Your task to perform on an android device: check the backup settings in the google photos Image 0: 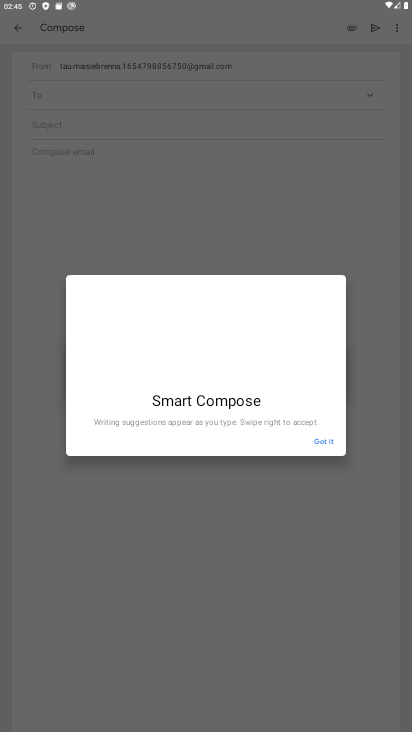
Step 0: press home button
Your task to perform on an android device: check the backup settings in the google photos Image 1: 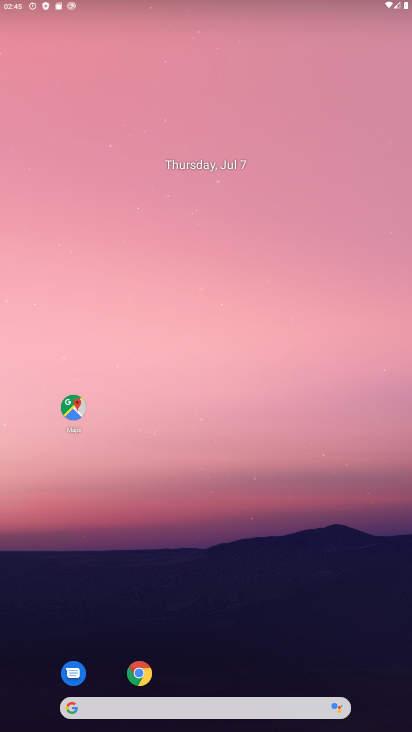
Step 1: drag from (214, 630) to (214, 165)
Your task to perform on an android device: check the backup settings in the google photos Image 2: 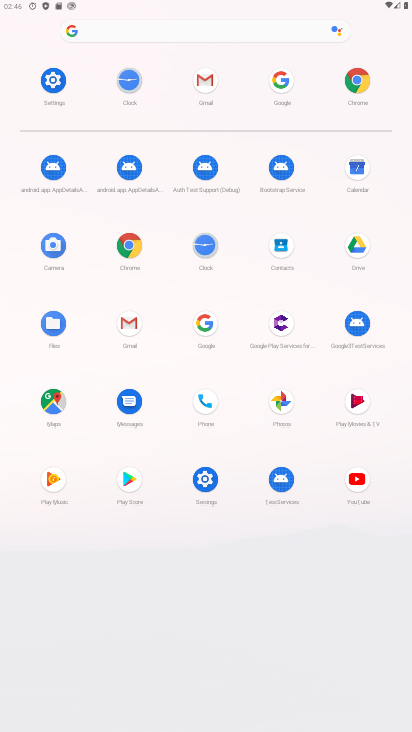
Step 2: click (282, 394)
Your task to perform on an android device: check the backup settings in the google photos Image 3: 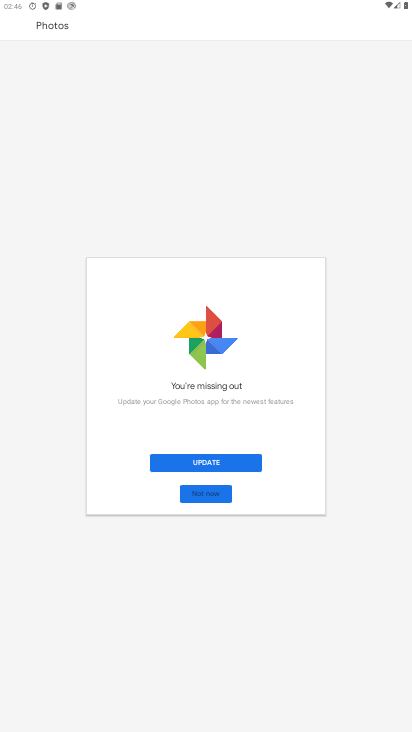
Step 3: click (223, 492)
Your task to perform on an android device: check the backup settings in the google photos Image 4: 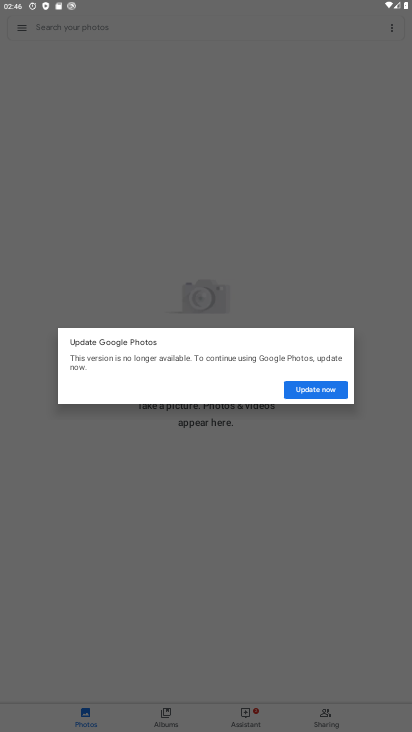
Step 4: click (305, 386)
Your task to perform on an android device: check the backup settings in the google photos Image 5: 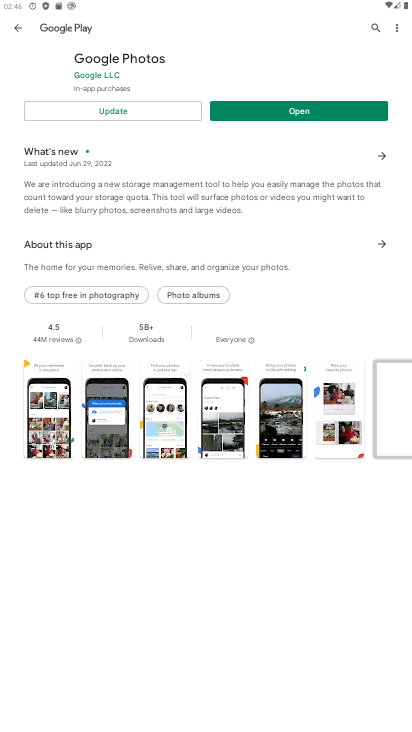
Step 5: click (295, 116)
Your task to perform on an android device: check the backup settings in the google photos Image 6: 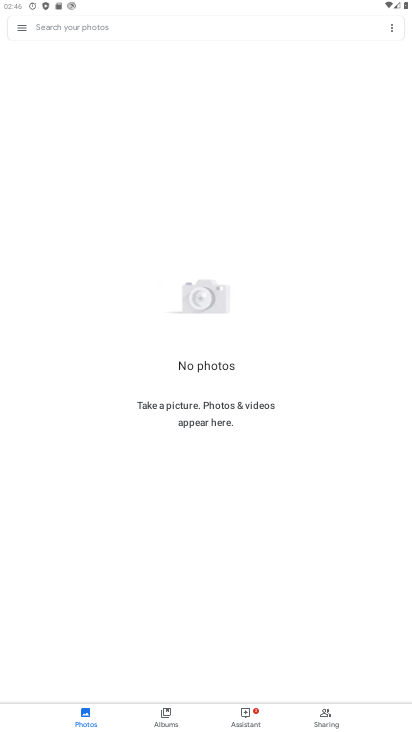
Step 6: click (20, 23)
Your task to perform on an android device: check the backup settings in the google photos Image 7: 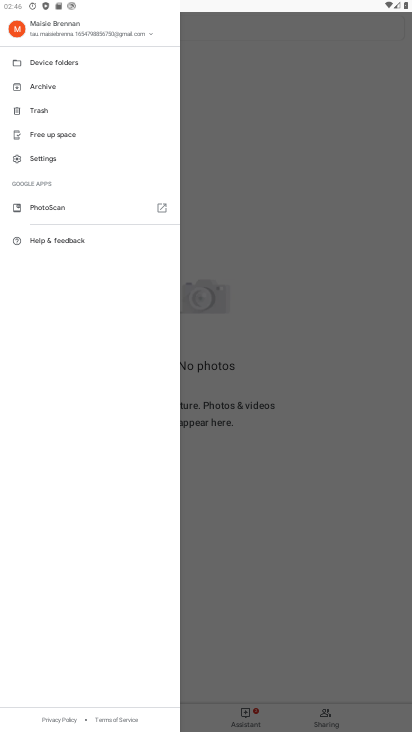
Step 7: click (79, 30)
Your task to perform on an android device: check the backup settings in the google photos Image 8: 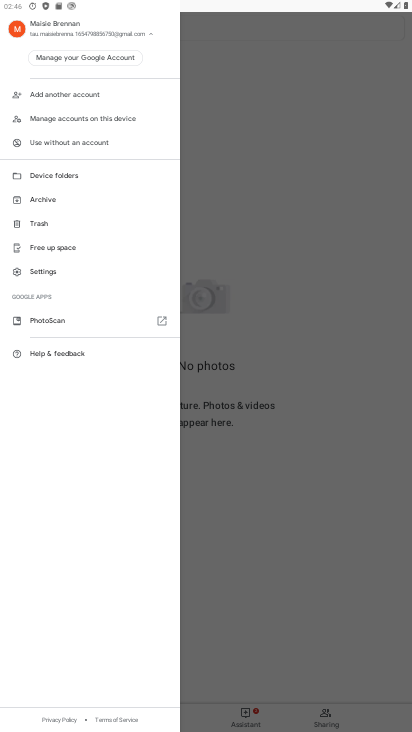
Step 8: click (22, 274)
Your task to perform on an android device: check the backup settings in the google photos Image 9: 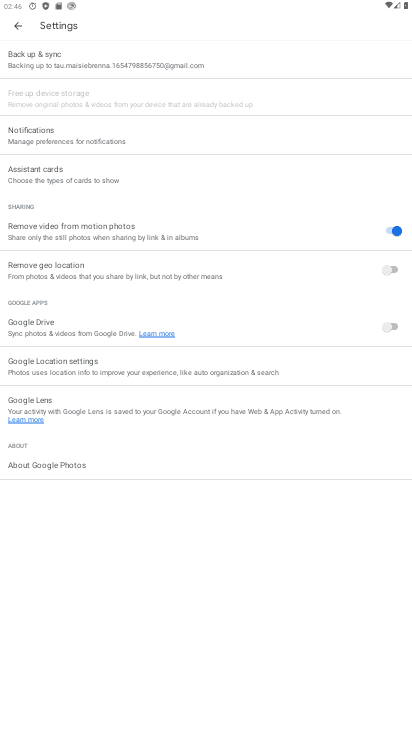
Step 9: click (33, 66)
Your task to perform on an android device: check the backup settings in the google photos Image 10: 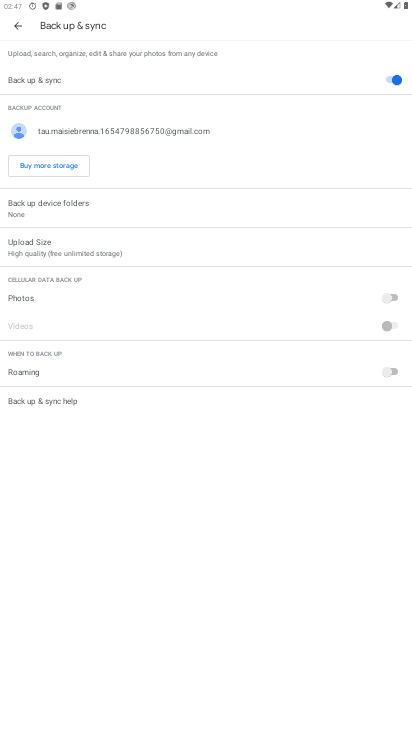
Step 10: task complete